Your task to perform on an android device: Open Google Maps Image 0: 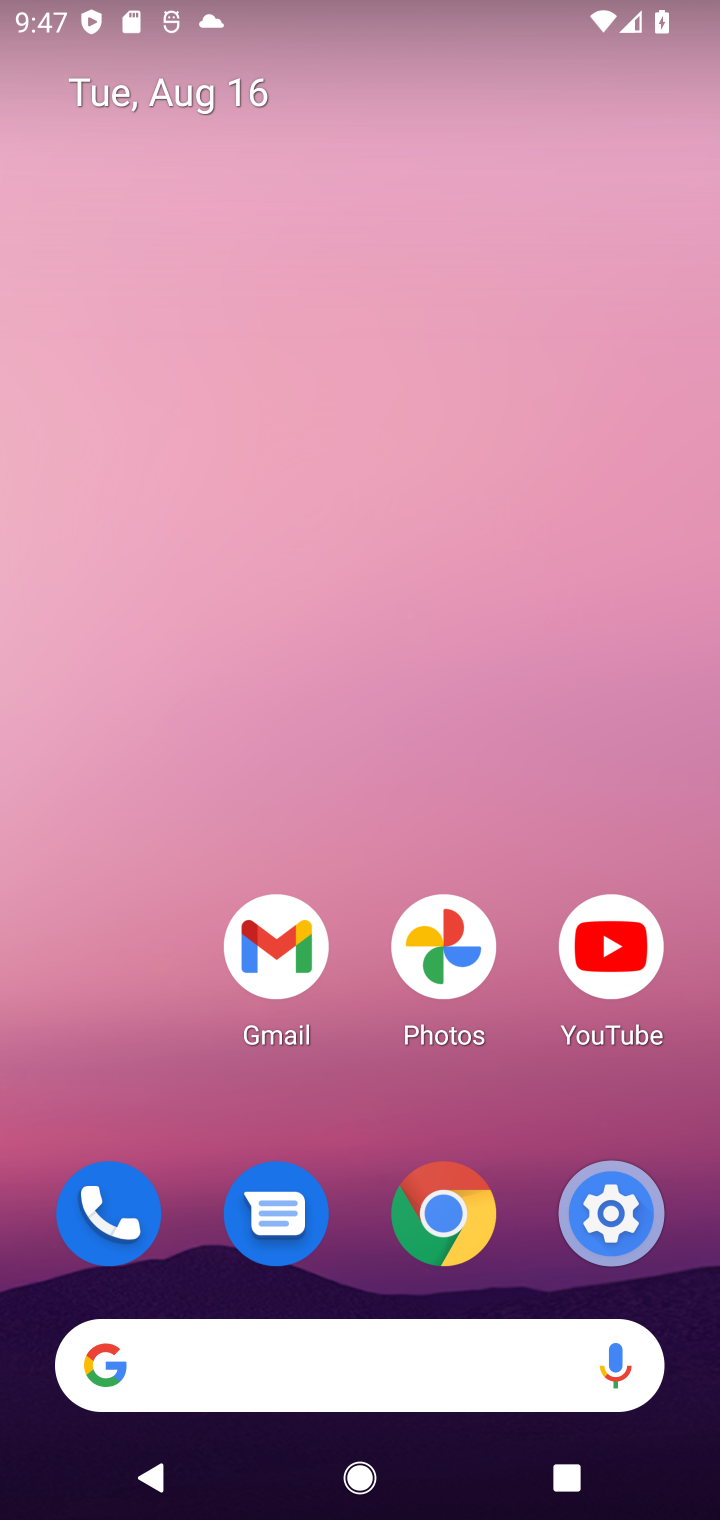
Step 0: drag from (280, 1104) to (316, 141)
Your task to perform on an android device: Open Google Maps Image 1: 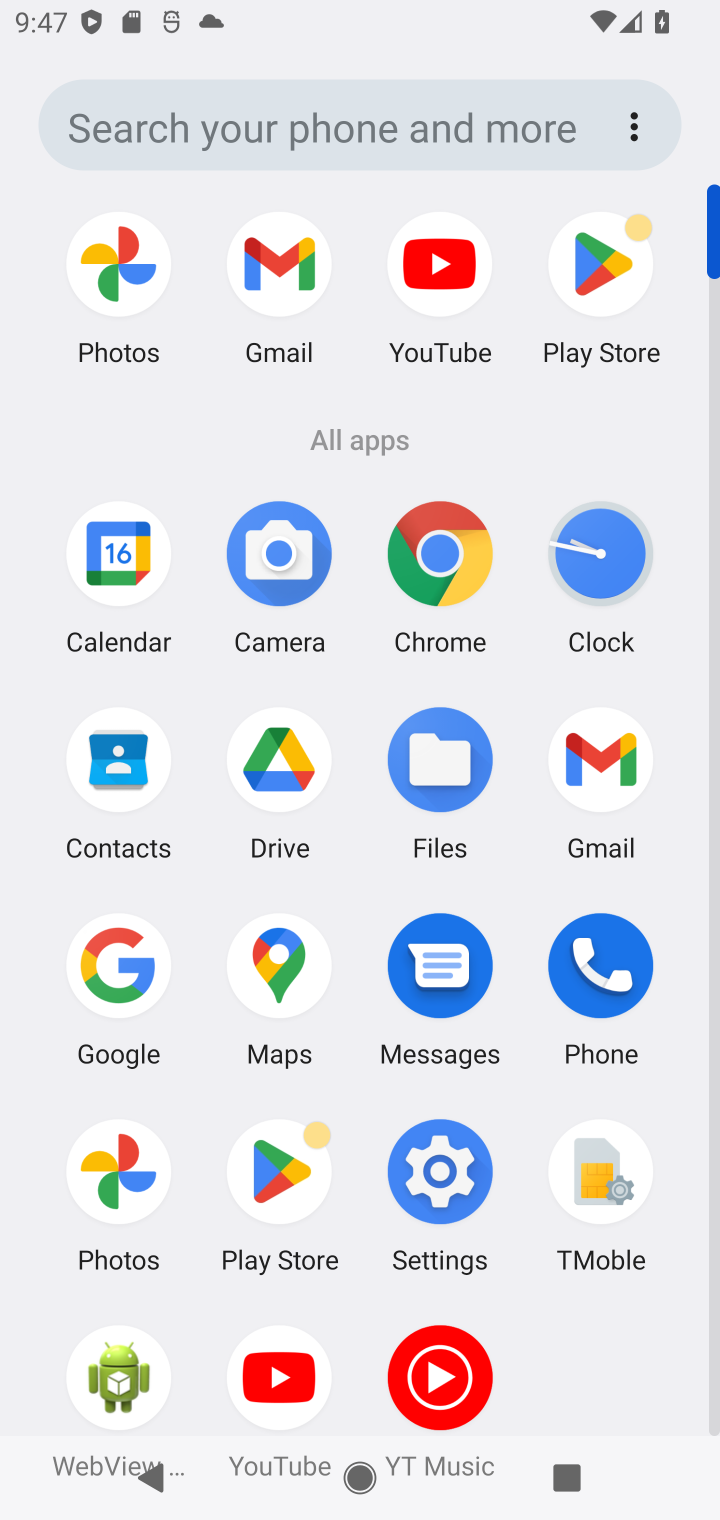
Step 1: click (277, 950)
Your task to perform on an android device: Open Google Maps Image 2: 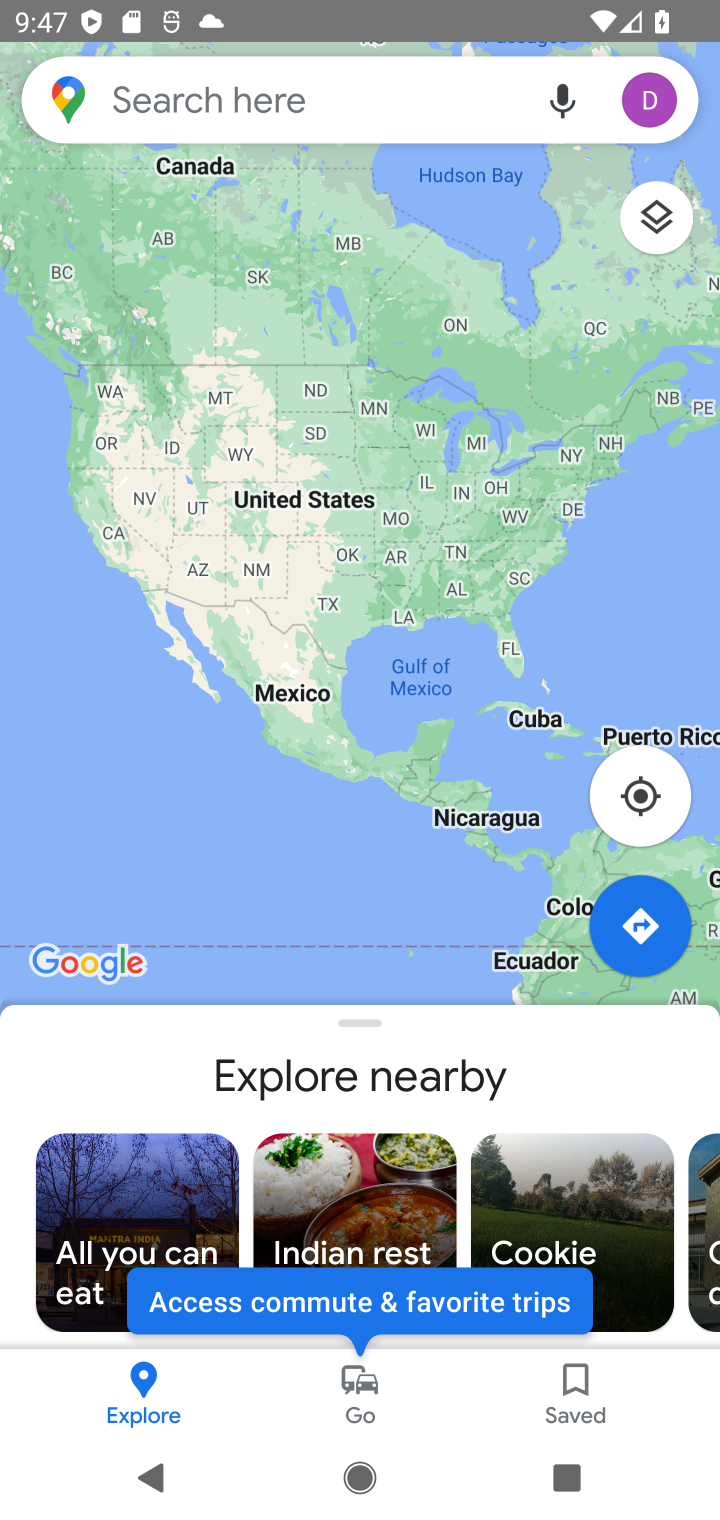
Step 2: task complete